Your task to perform on an android device: Search for Italian restaurants on Maps Image 0: 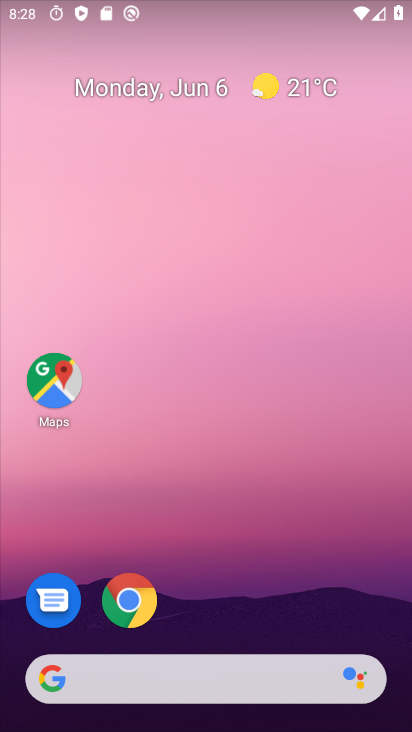
Step 0: drag from (220, 562) to (218, 69)
Your task to perform on an android device: Search for Italian restaurants on Maps Image 1: 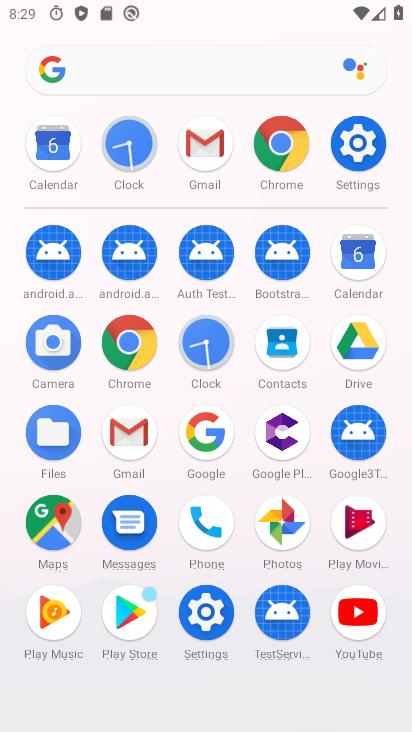
Step 1: drag from (18, 577) to (18, 291)
Your task to perform on an android device: Search for Italian restaurants on Maps Image 2: 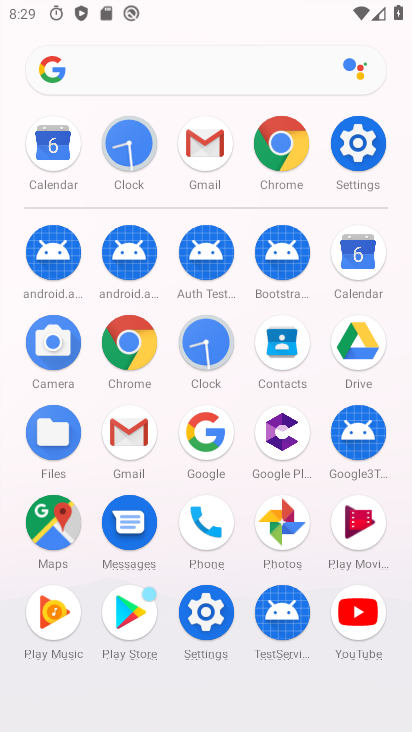
Step 2: click (55, 522)
Your task to perform on an android device: Search for Italian restaurants on Maps Image 3: 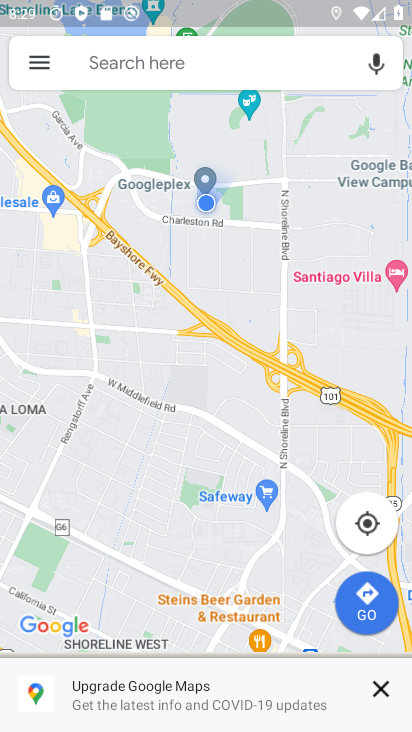
Step 3: click (228, 63)
Your task to perform on an android device: Search for Italian restaurants on Maps Image 4: 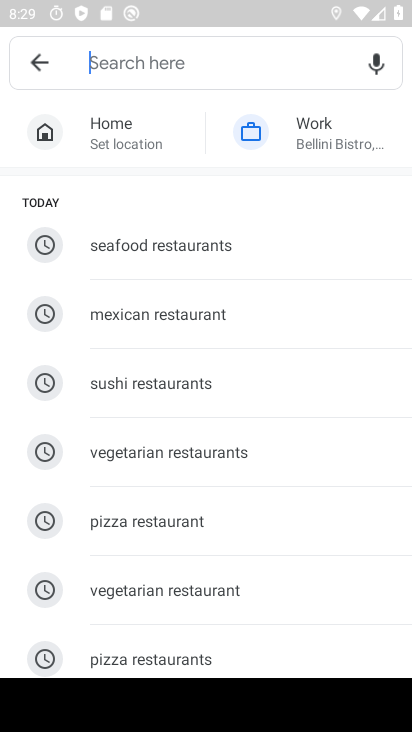
Step 4: drag from (194, 587) to (223, 231)
Your task to perform on an android device: Search for Italian restaurants on Maps Image 5: 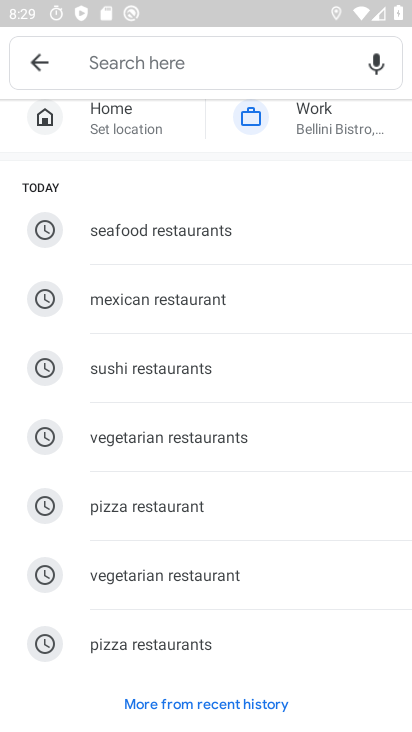
Step 5: click (186, 62)
Your task to perform on an android device: Search for Italian restaurants on Maps Image 6: 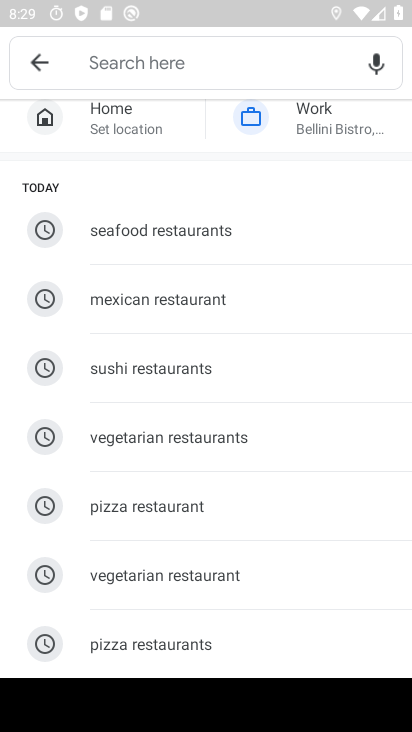
Step 6: type "Italian restaurants"
Your task to perform on an android device: Search for Italian restaurants on Maps Image 7: 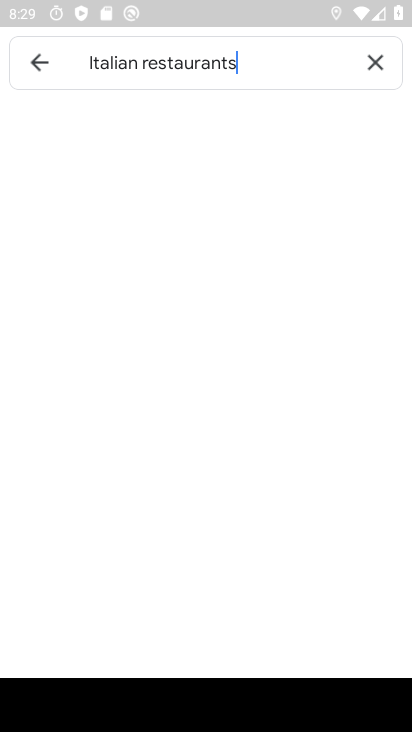
Step 7: type ""
Your task to perform on an android device: Search for Italian restaurants on Maps Image 8: 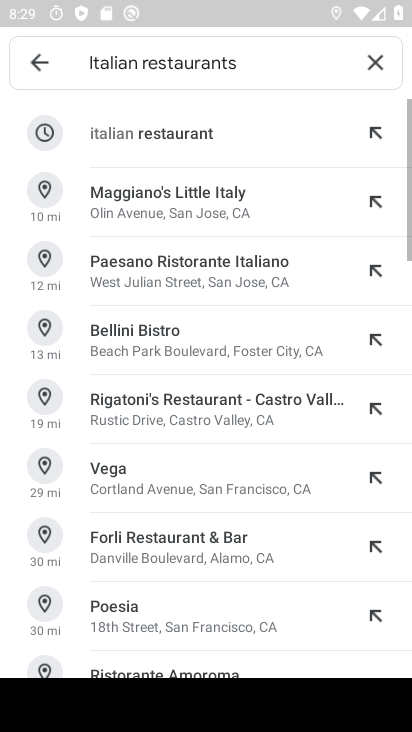
Step 8: click (152, 126)
Your task to perform on an android device: Search for Italian restaurants on Maps Image 9: 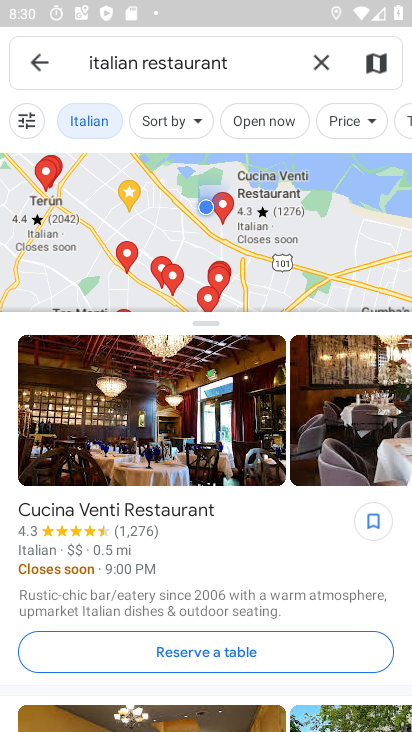
Step 9: task complete